Your task to perform on an android device: Open Google Chrome and click the shortcut for Amazon.com Image 0: 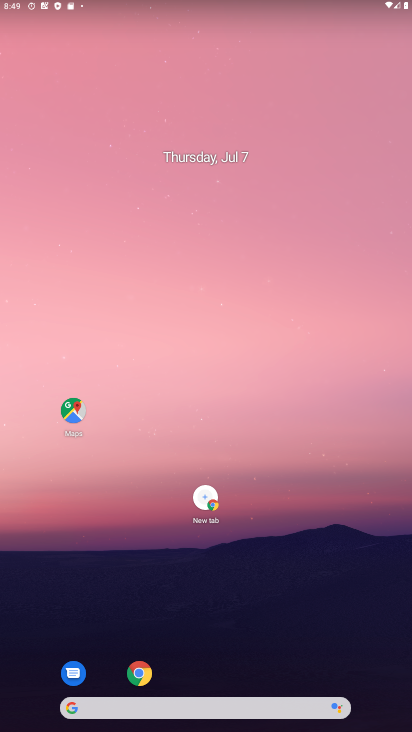
Step 0: press home button
Your task to perform on an android device: Open Google Chrome and click the shortcut for Amazon.com Image 1: 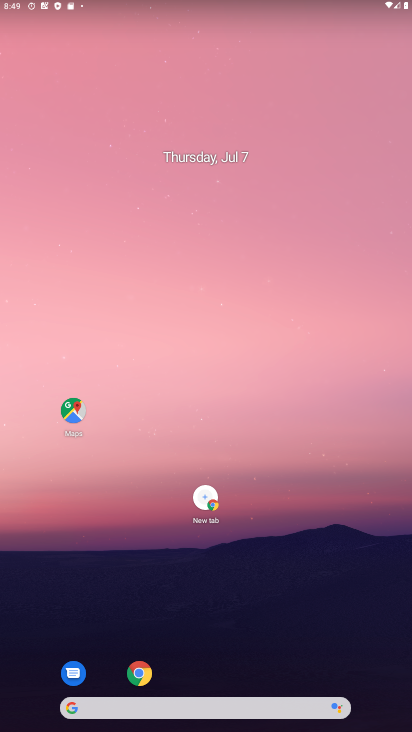
Step 1: drag from (261, 639) to (222, 100)
Your task to perform on an android device: Open Google Chrome and click the shortcut for Amazon.com Image 2: 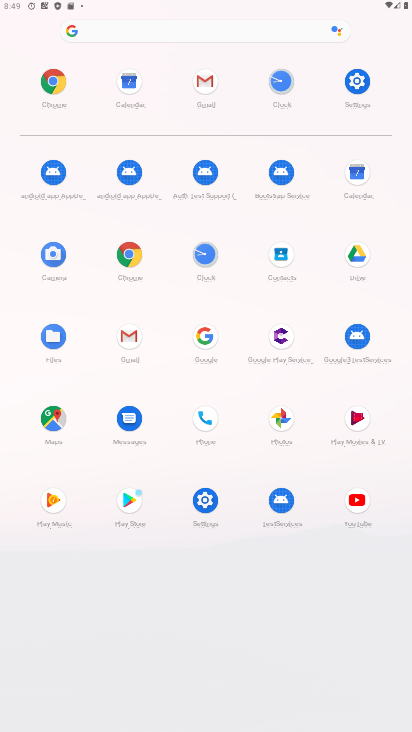
Step 2: click (46, 87)
Your task to perform on an android device: Open Google Chrome and click the shortcut for Amazon.com Image 3: 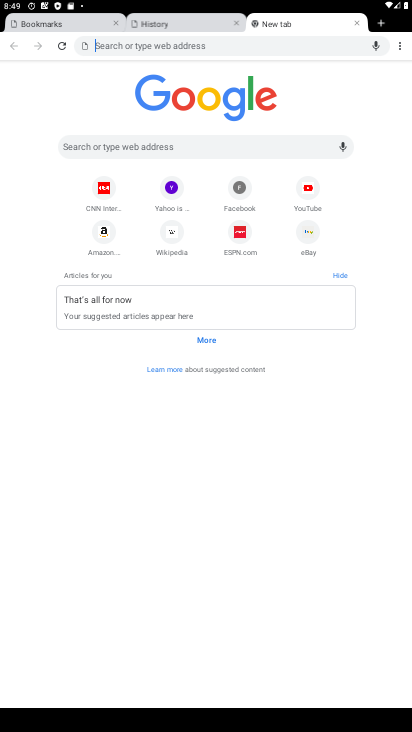
Step 3: click (107, 238)
Your task to perform on an android device: Open Google Chrome and click the shortcut for Amazon.com Image 4: 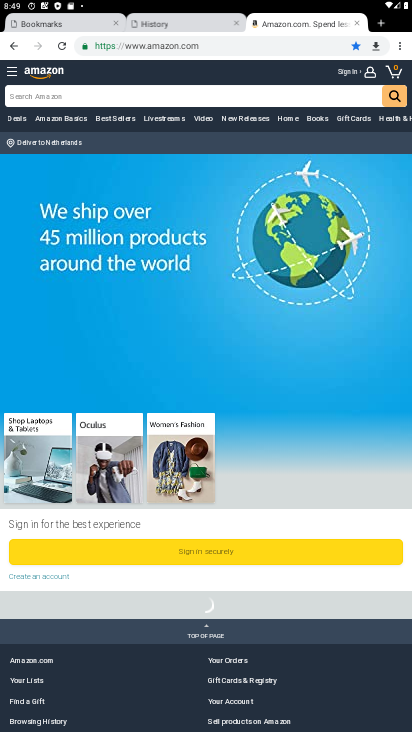
Step 4: task complete